Your task to perform on an android device: Open Maps and search for coffee Image 0: 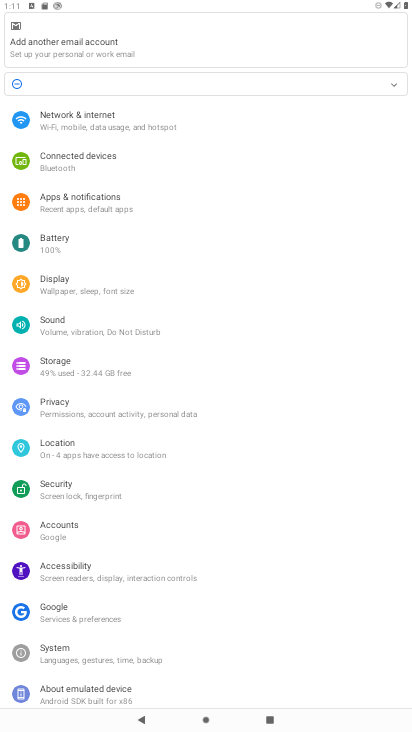
Step 0: press home button
Your task to perform on an android device: Open Maps and search for coffee Image 1: 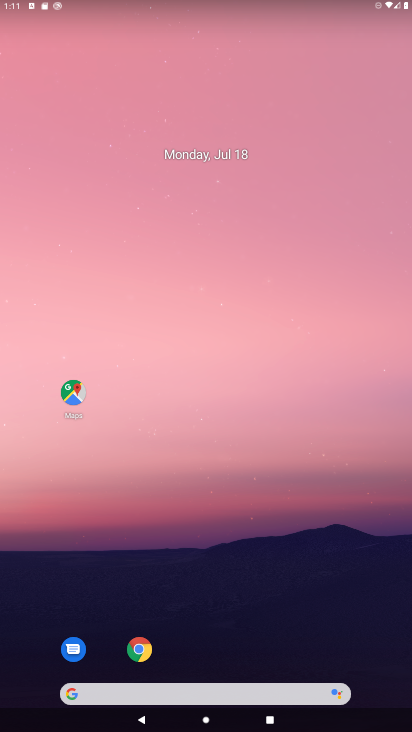
Step 1: click (70, 385)
Your task to perform on an android device: Open Maps and search for coffee Image 2: 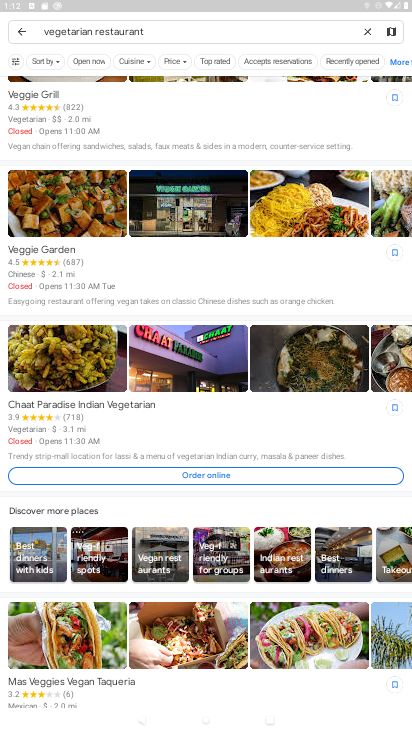
Step 2: click (372, 25)
Your task to perform on an android device: Open Maps and search for coffee Image 3: 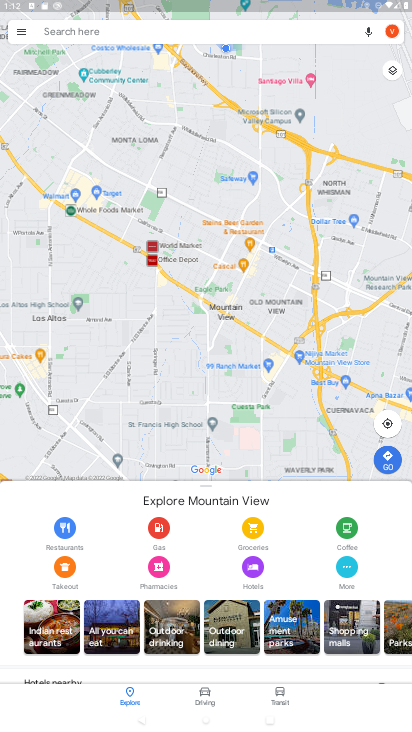
Step 3: click (123, 28)
Your task to perform on an android device: Open Maps and search for coffee Image 4: 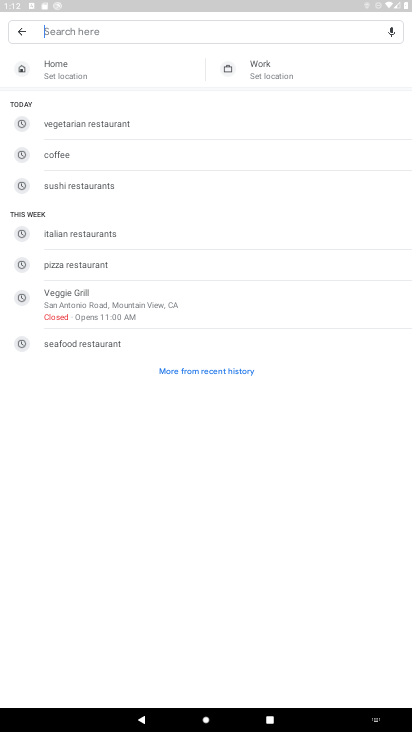
Step 4: type "coffee"
Your task to perform on an android device: Open Maps and search for coffee Image 5: 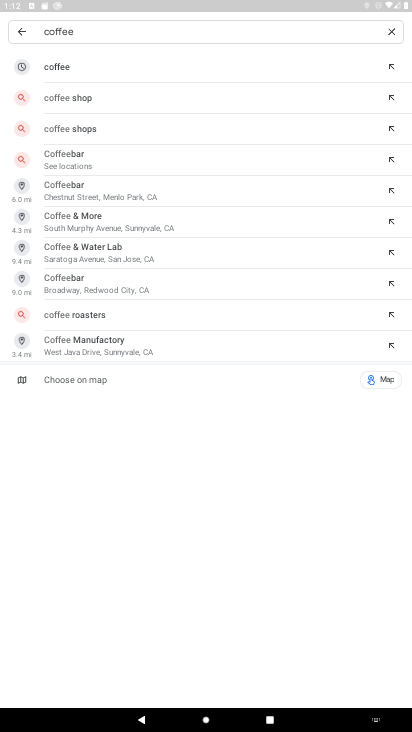
Step 5: click (57, 73)
Your task to perform on an android device: Open Maps and search for coffee Image 6: 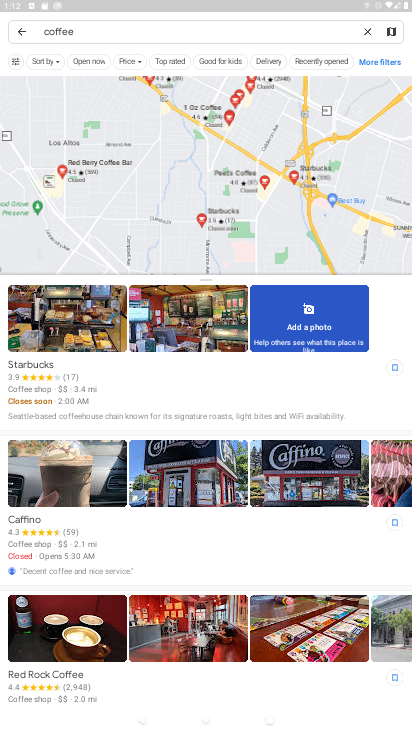
Step 6: task complete